Your task to perform on an android device: change text size in settings app Image 0: 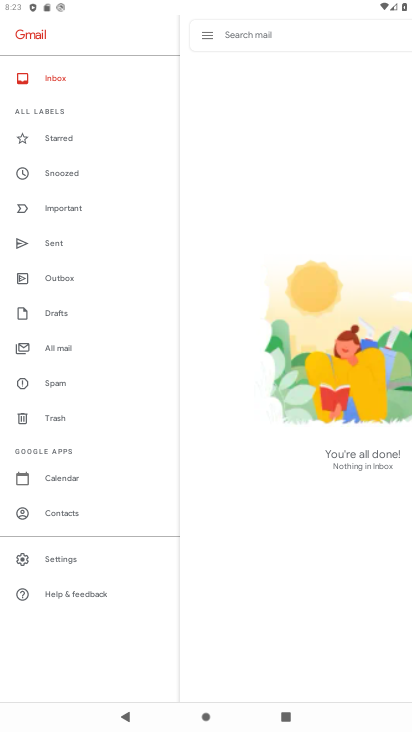
Step 0: press home button
Your task to perform on an android device: change text size in settings app Image 1: 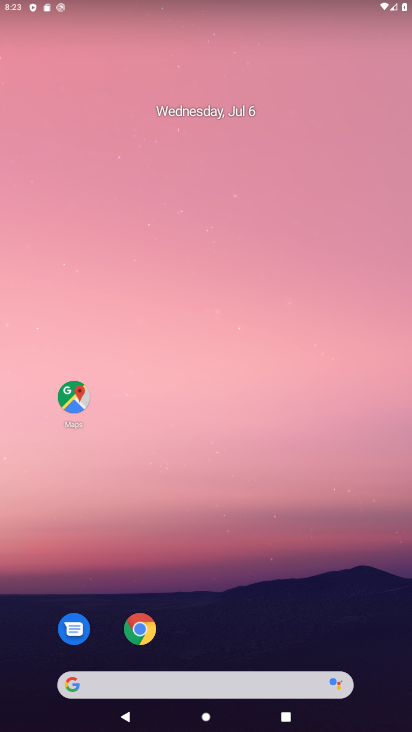
Step 1: drag from (199, 664) to (119, 15)
Your task to perform on an android device: change text size in settings app Image 2: 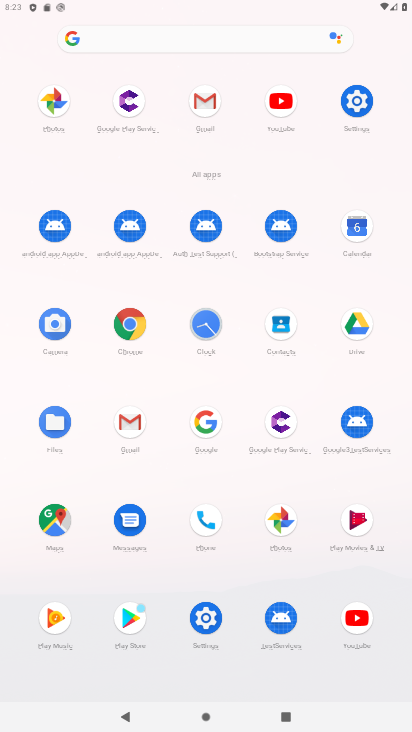
Step 2: click (345, 99)
Your task to perform on an android device: change text size in settings app Image 3: 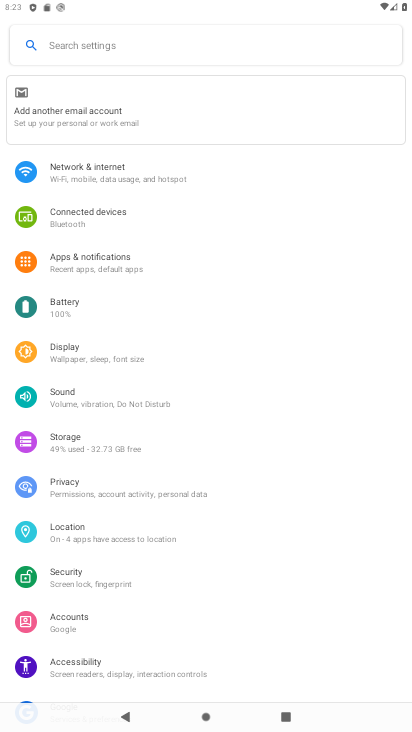
Step 3: click (50, 358)
Your task to perform on an android device: change text size in settings app Image 4: 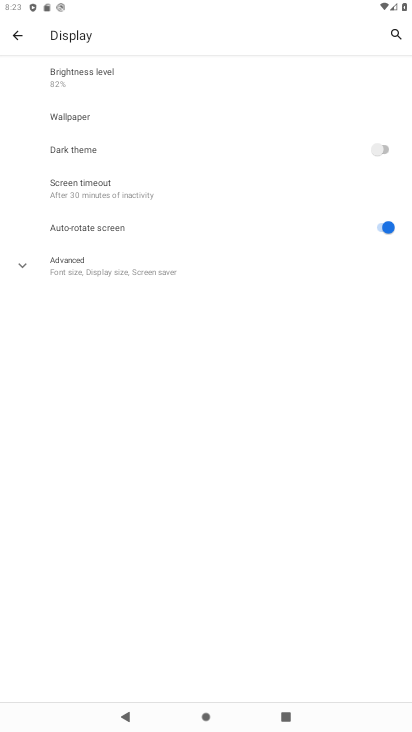
Step 4: click (57, 273)
Your task to perform on an android device: change text size in settings app Image 5: 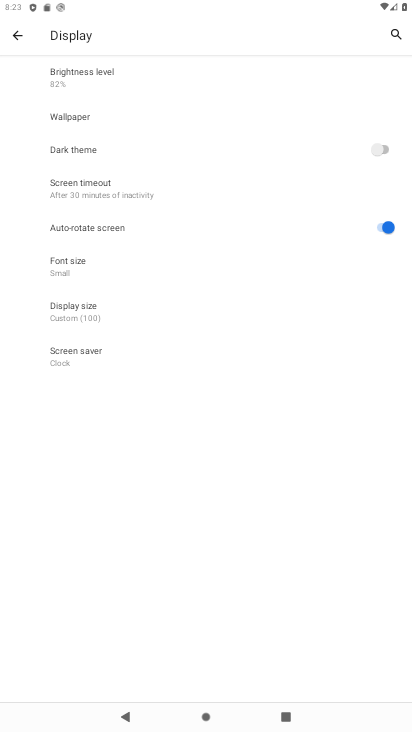
Step 5: click (77, 303)
Your task to perform on an android device: change text size in settings app Image 6: 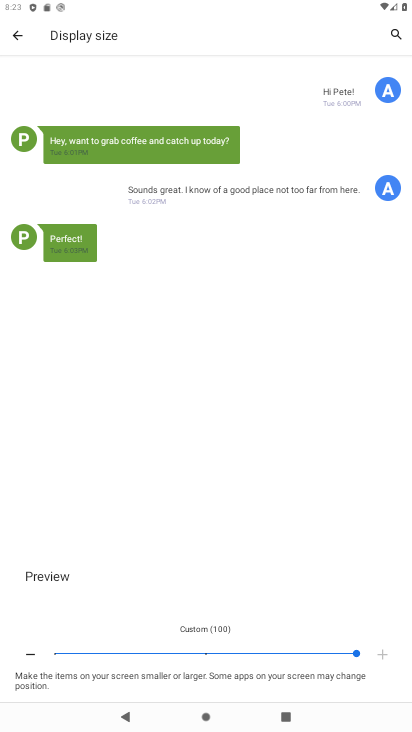
Step 6: click (209, 655)
Your task to perform on an android device: change text size in settings app Image 7: 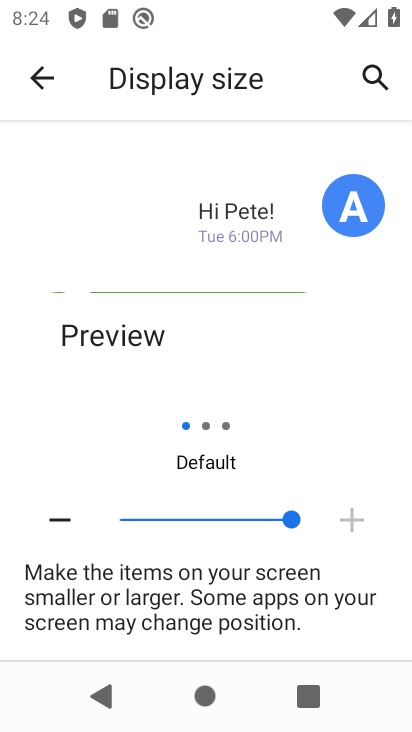
Step 7: task complete